Your task to perform on an android device: Go to settings Image 0: 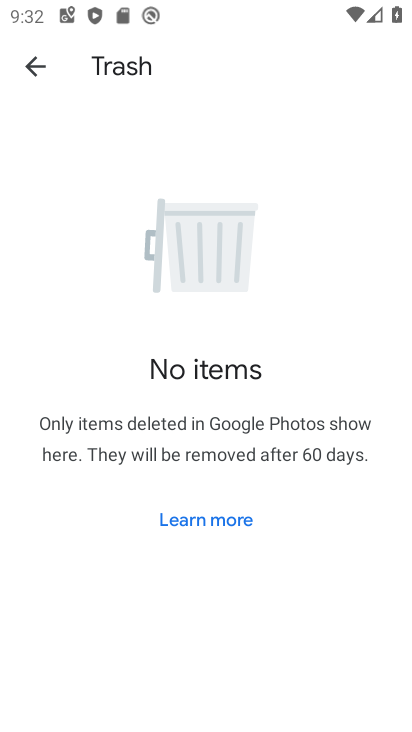
Step 0: press home button
Your task to perform on an android device: Go to settings Image 1: 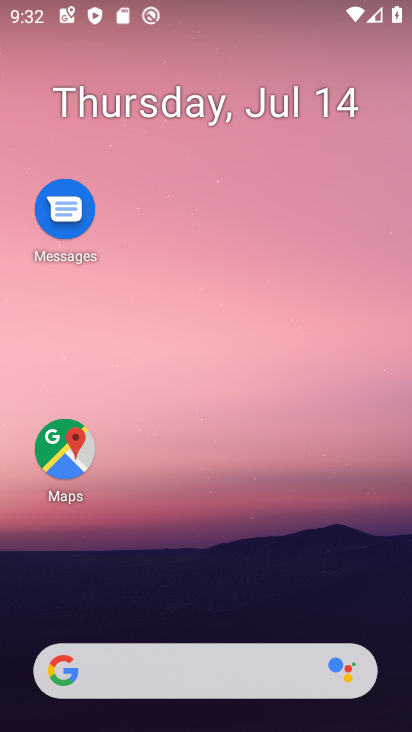
Step 1: drag from (210, 613) to (234, 59)
Your task to perform on an android device: Go to settings Image 2: 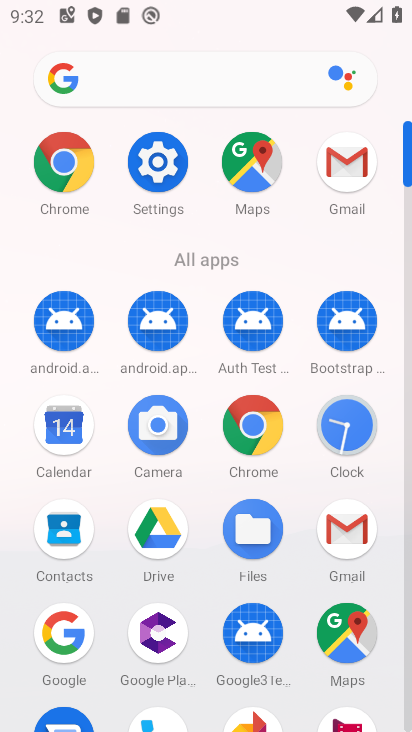
Step 2: click (151, 146)
Your task to perform on an android device: Go to settings Image 3: 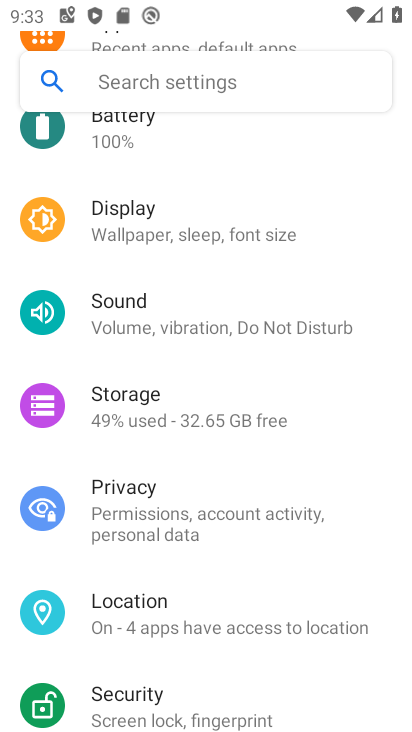
Step 3: task complete